Your task to perform on an android device: What's on my calendar tomorrow? Image 0: 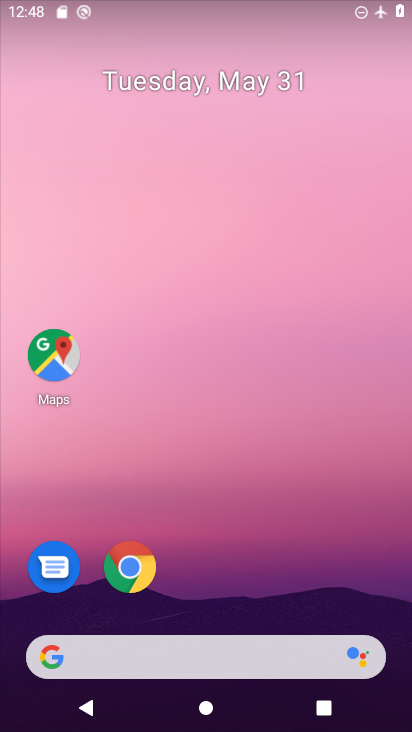
Step 0: drag from (225, 606) to (228, 220)
Your task to perform on an android device: What's on my calendar tomorrow? Image 1: 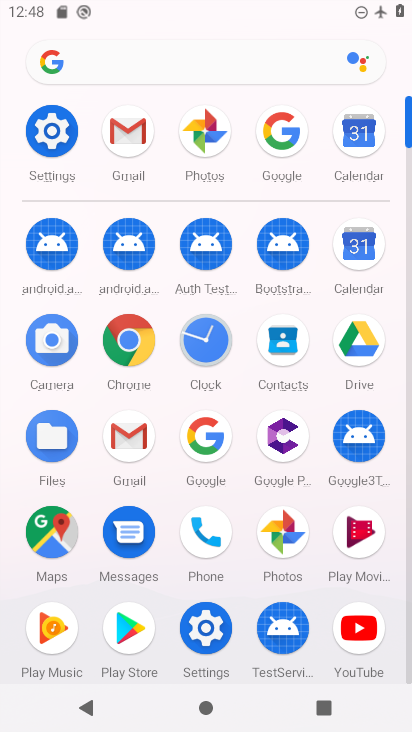
Step 1: click (344, 249)
Your task to perform on an android device: What's on my calendar tomorrow? Image 2: 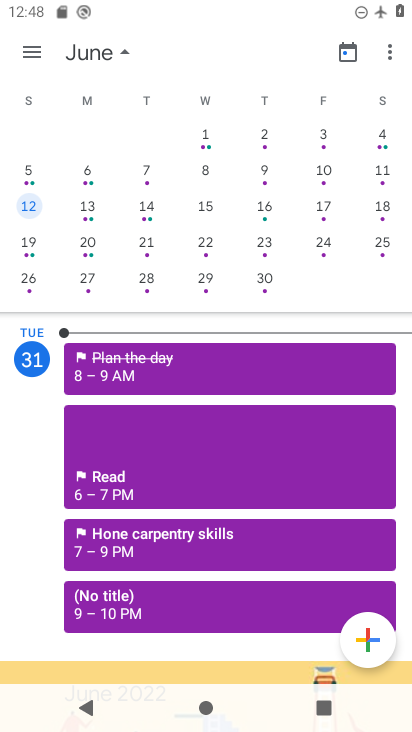
Step 2: drag from (68, 195) to (356, 162)
Your task to perform on an android device: What's on my calendar tomorrow? Image 3: 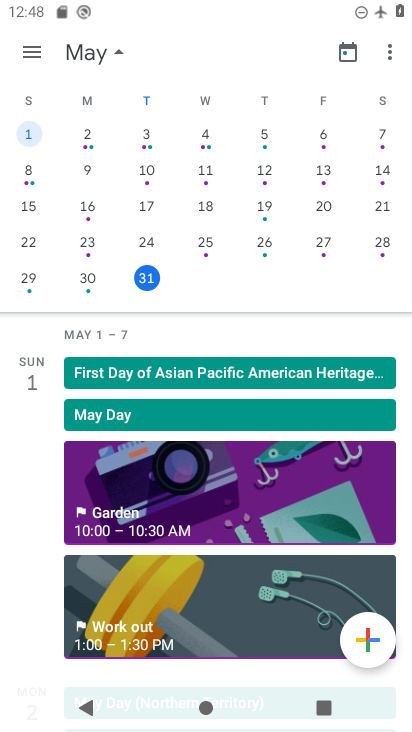
Step 3: drag from (337, 275) to (49, 264)
Your task to perform on an android device: What's on my calendar tomorrow? Image 4: 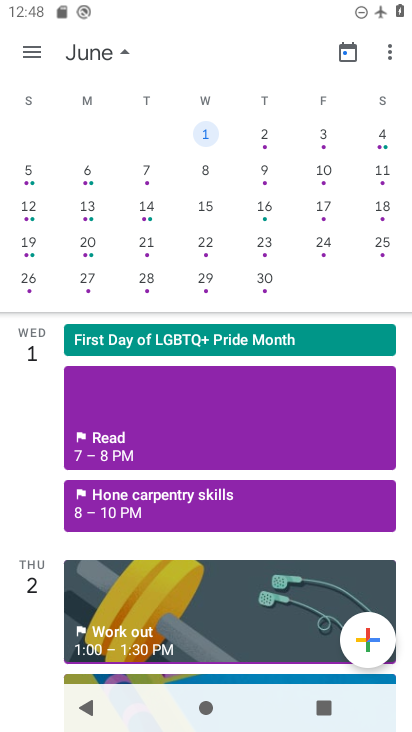
Step 4: click (203, 128)
Your task to perform on an android device: What's on my calendar tomorrow? Image 5: 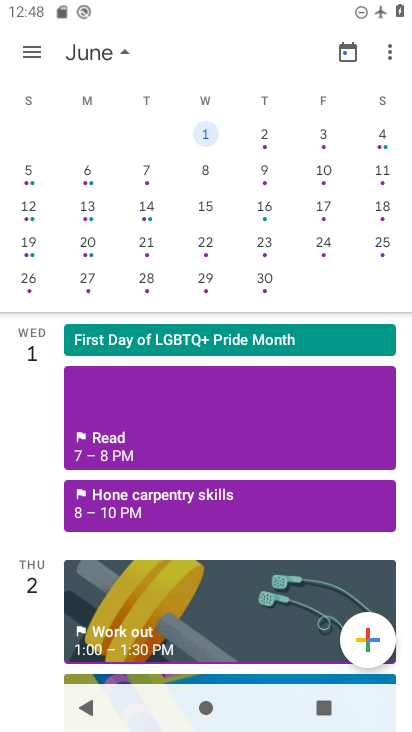
Step 5: task complete